Your task to perform on an android device: What's on my calendar tomorrow? Image 0: 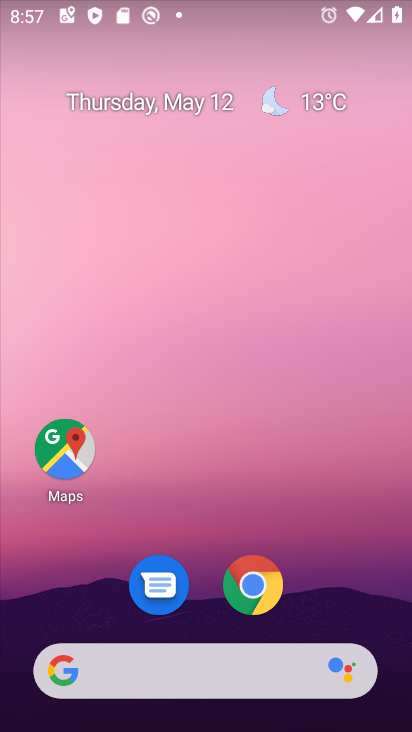
Step 0: drag from (185, 460) to (142, 53)
Your task to perform on an android device: What's on my calendar tomorrow? Image 1: 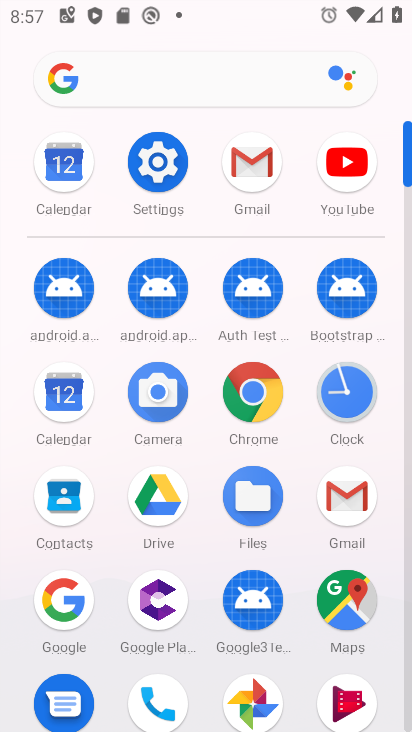
Step 1: click (55, 144)
Your task to perform on an android device: What's on my calendar tomorrow? Image 2: 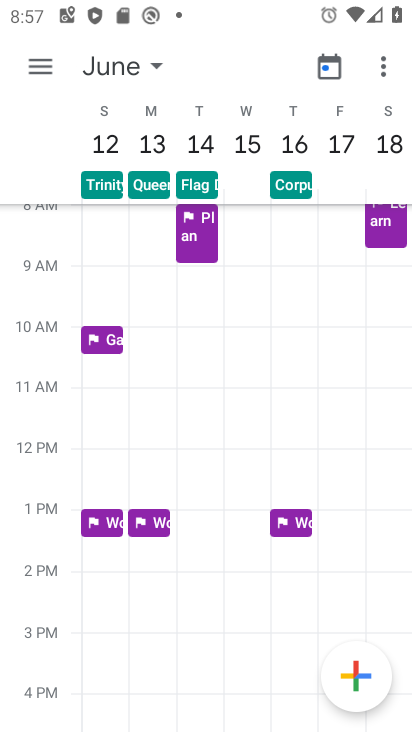
Step 2: click (29, 54)
Your task to perform on an android device: What's on my calendar tomorrow? Image 3: 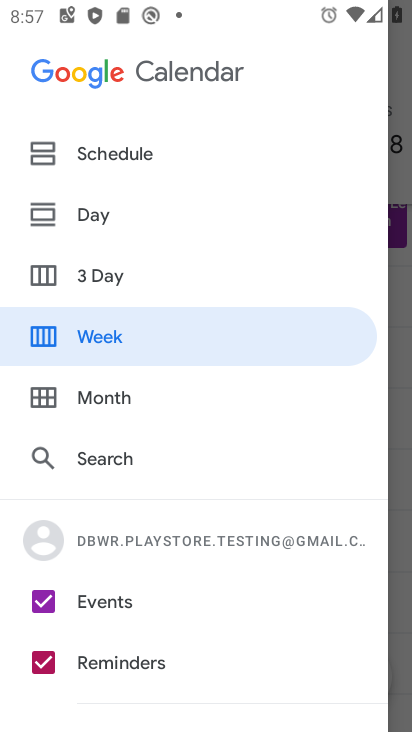
Step 3: click (89, 389)
Your task to perform on an android device: What's on my calendar tomorrow? Image 4: 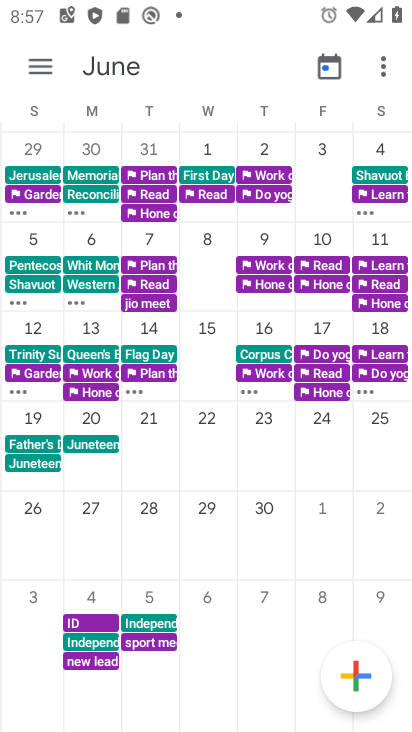
Step 4: drag from (28, 320) to (391, 388)
Your task to perform on an android device: What's on my calendar tomorrow? Image 5: 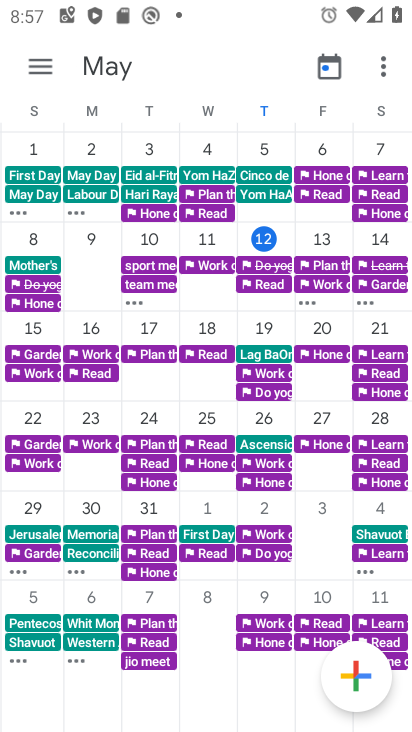
Step 5: click (257, 250)
Your task to perform on an android device: What's on my calendar tomorrow? Image 6: 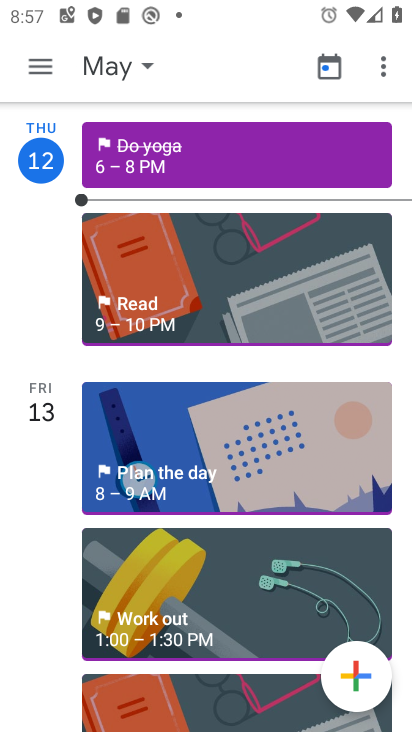
Step 6: task complete